Your task to perform on an android device: Search for jbl flip 4 on ebay, select the first entry, add it to the cart, then select checkout. Image 0: 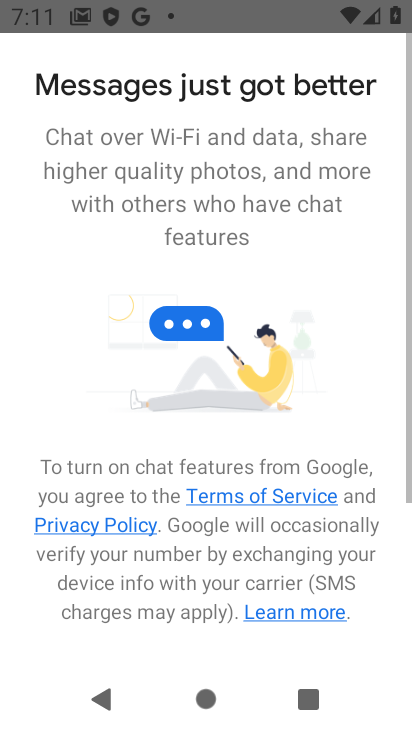
Step 0: press home button
Your task to perform on an android device: Search for jbl flip 4 on ebay, select the first entry, add it to the cart, then select checkout. Image 1: 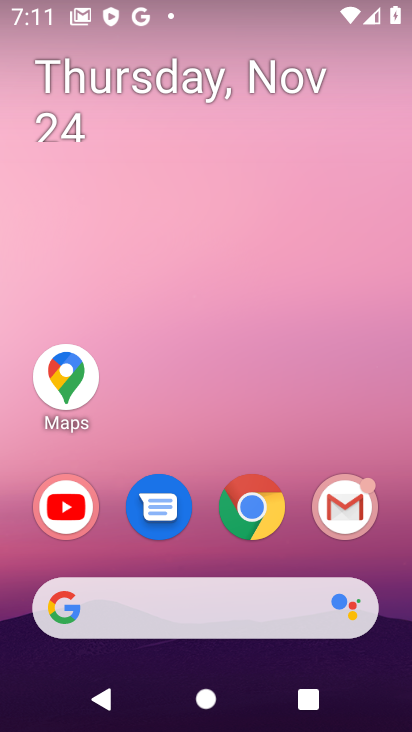
Step 1: click (256, 526)
Your task to perform on an android device: Search for jbl flip 4 on ebay, select the first entry, add it to the cart, then select checkout. Image 2: 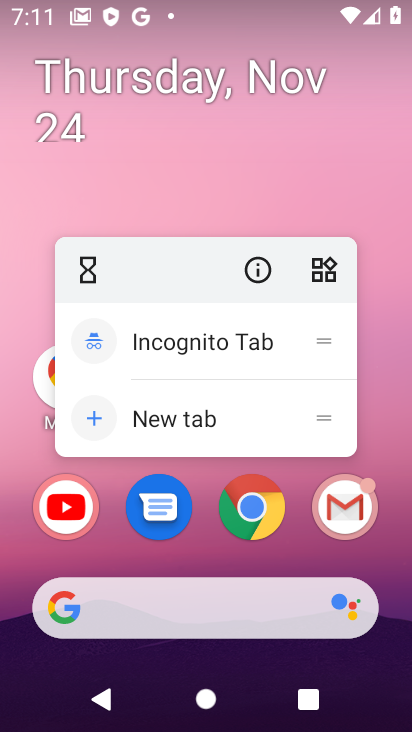
Step 2: click (260, 508)
Your task to perform on an android device: Search for jbl flip 4 on ebay, select the first entry, add it to the cart, then select checkout. Image 3: 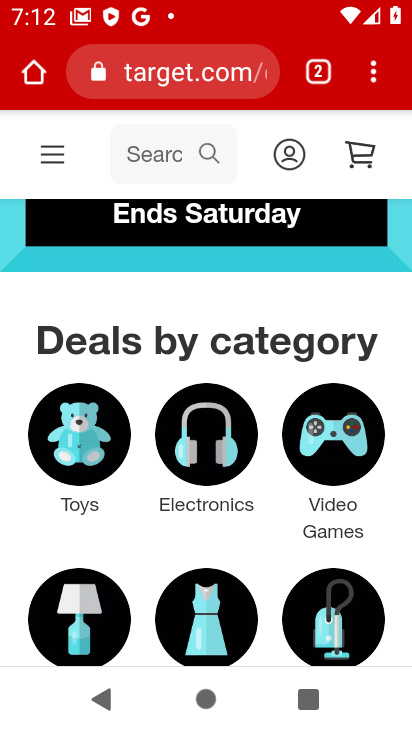
Step 3: click (211, 72)
Your task to perform on an android device: Search for jbl flip 4 on ebay, select the first entry, add it to the cart, then select checkout. Image 4: 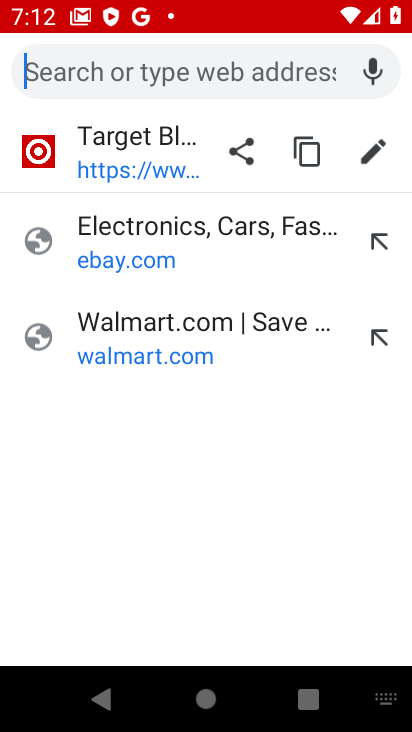
Step 4: type "ebay"
Your task to perform on an android device: Search for jbl flip 4 on ebay, select the first entry, add it to the cart, then select checkout. Image 5: 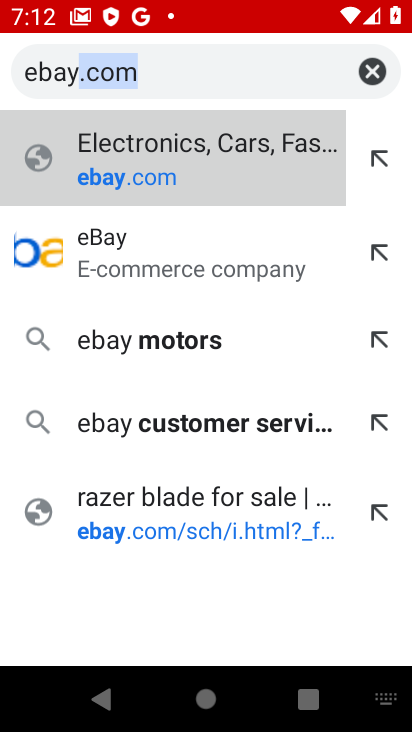
Step 5: click (233, 157)
Your task to perform on an android device: Search for jbl flip 4 on ebay, select the first entry, add it to the cart, then select checkout. Image 6: 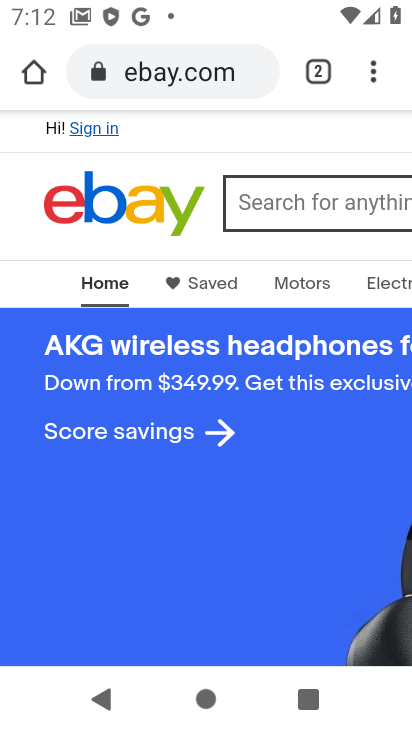
Step 6: click (297, 200)
Your task to perform on an android device: Search for jbl flip 4 on ebay, select the first entry, add it to the cart, then select checkout. Image 7: 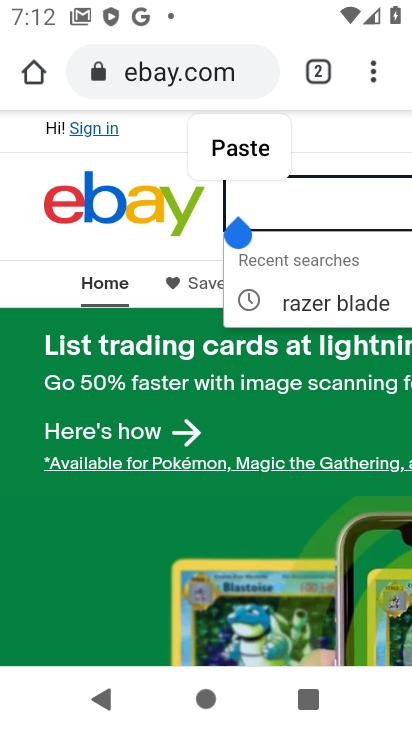
Step 7: type "jbl flip 4"
Your task to perform on an android device: Search for jbl flip 4 on ebay, select the first entry, add it to the cart, then select checkout. Image 8: 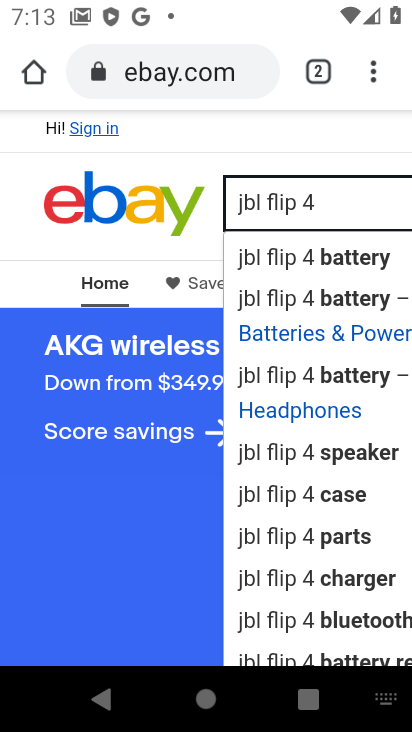
Step 8: press enter
Your task to perform on an android device: Search for jbl flip 4 on ebay, select the first entry, add it to the cart, then select checkout. Image 9: 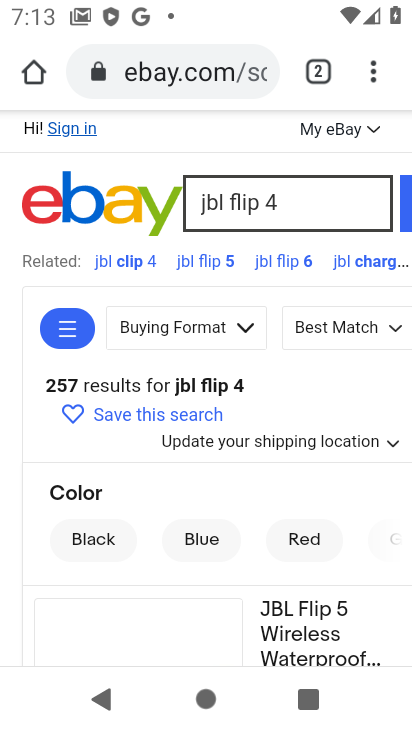
Step 9: drag from (229, 478) to (215, 236)
Your task to perform on an android device: Search for jbl flip 4 on ebay, select the first entry, add it to the cart, then select checkout. Image 10: 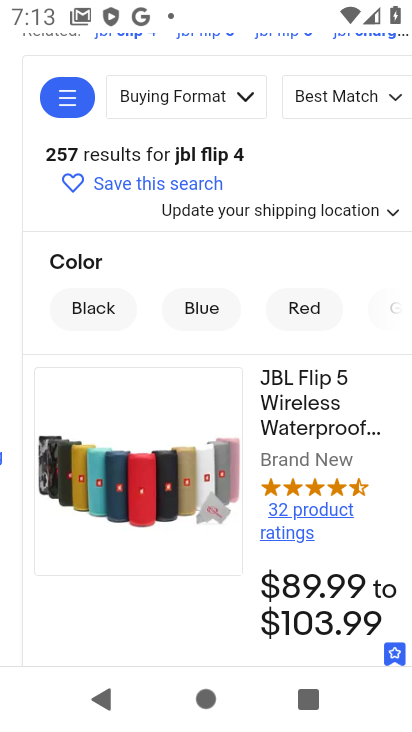
Step 10: drag from (293, 413) to (250, 37)
Your task to perform on an android device: Search for jbl flip 4 on ebay, select the first entry, add it to the cart, then select checkout. Image 11: 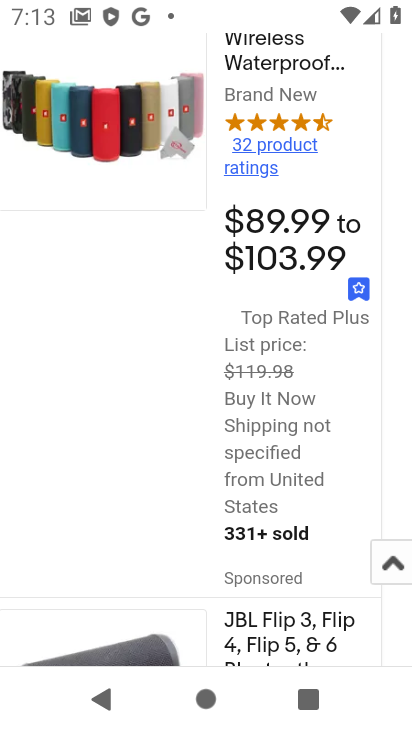
Step 11: click (254, 49)
Your task to perform on an android device: Search for jbl flip 4 on ebay, select the first entry, add it to the cart, then select checkout. Image 12: 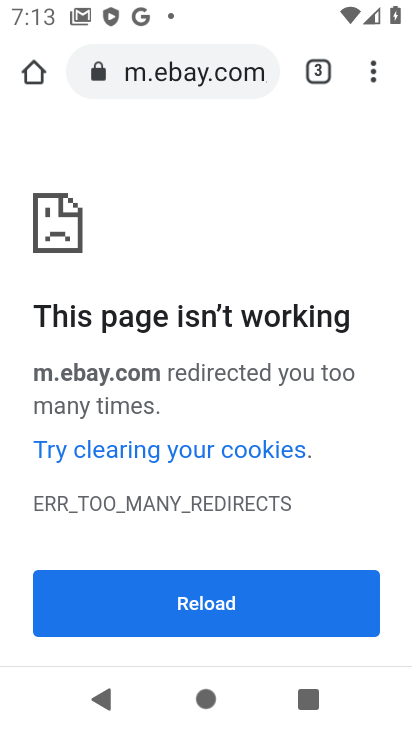
Step 12: click (269, 592)
Your task to perform on an android device: Search for jbl flip 4 on ebay, select the first entry, add it to the cart, then select checkout. Image 13: 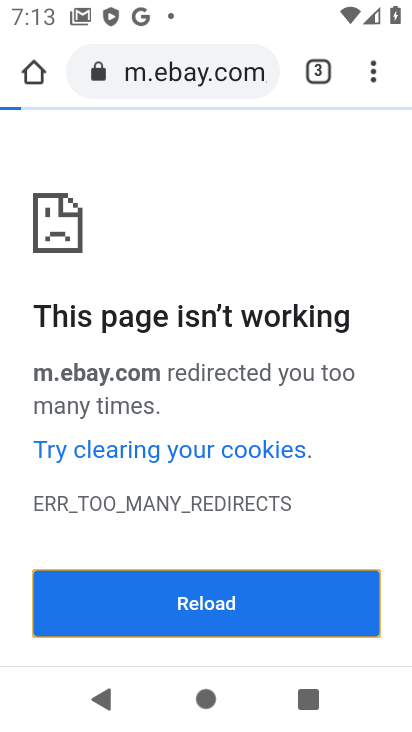
Step 13: task complete